Your task to perform on an android device: turn on data saver in the chrome app Image 0: 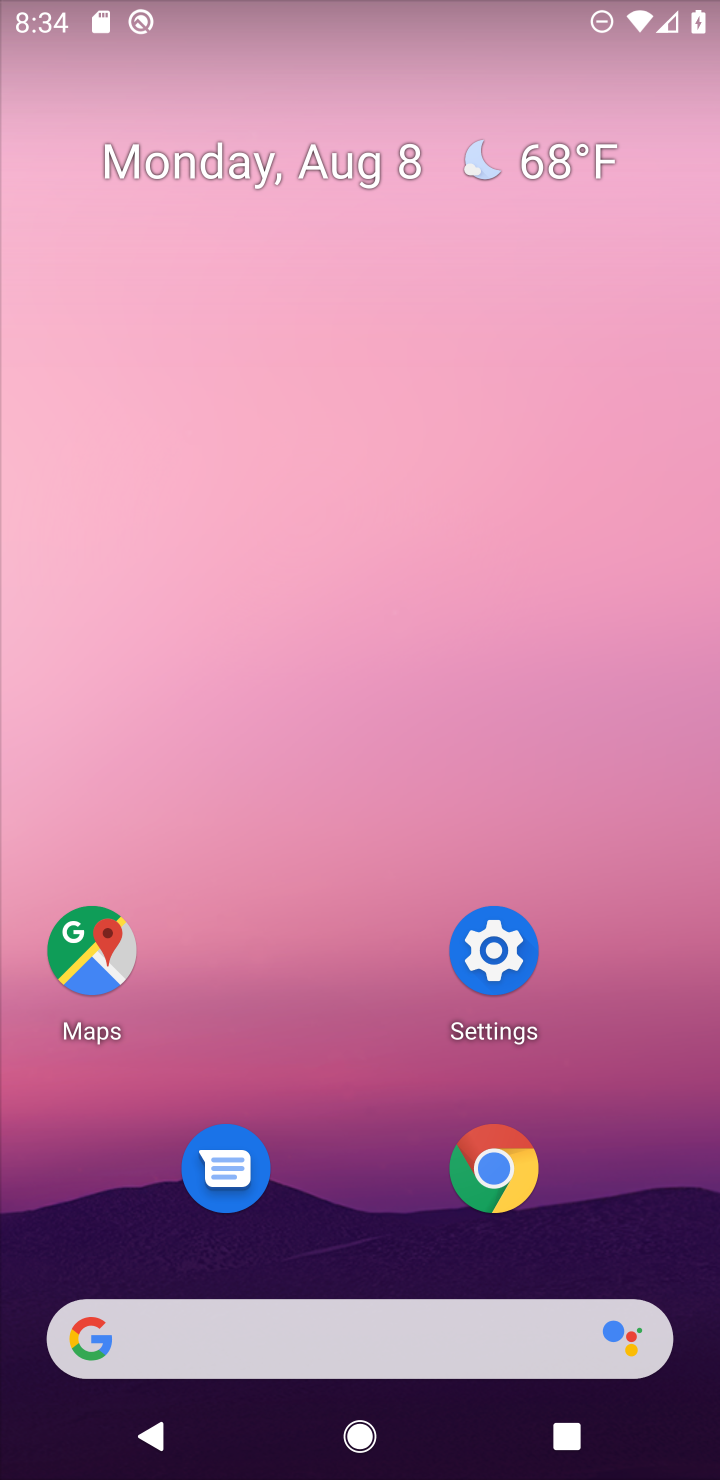
Step 0: click (491, 1186)
Your task to perform on an android device: turn on data saver in the chrome app Image 1: 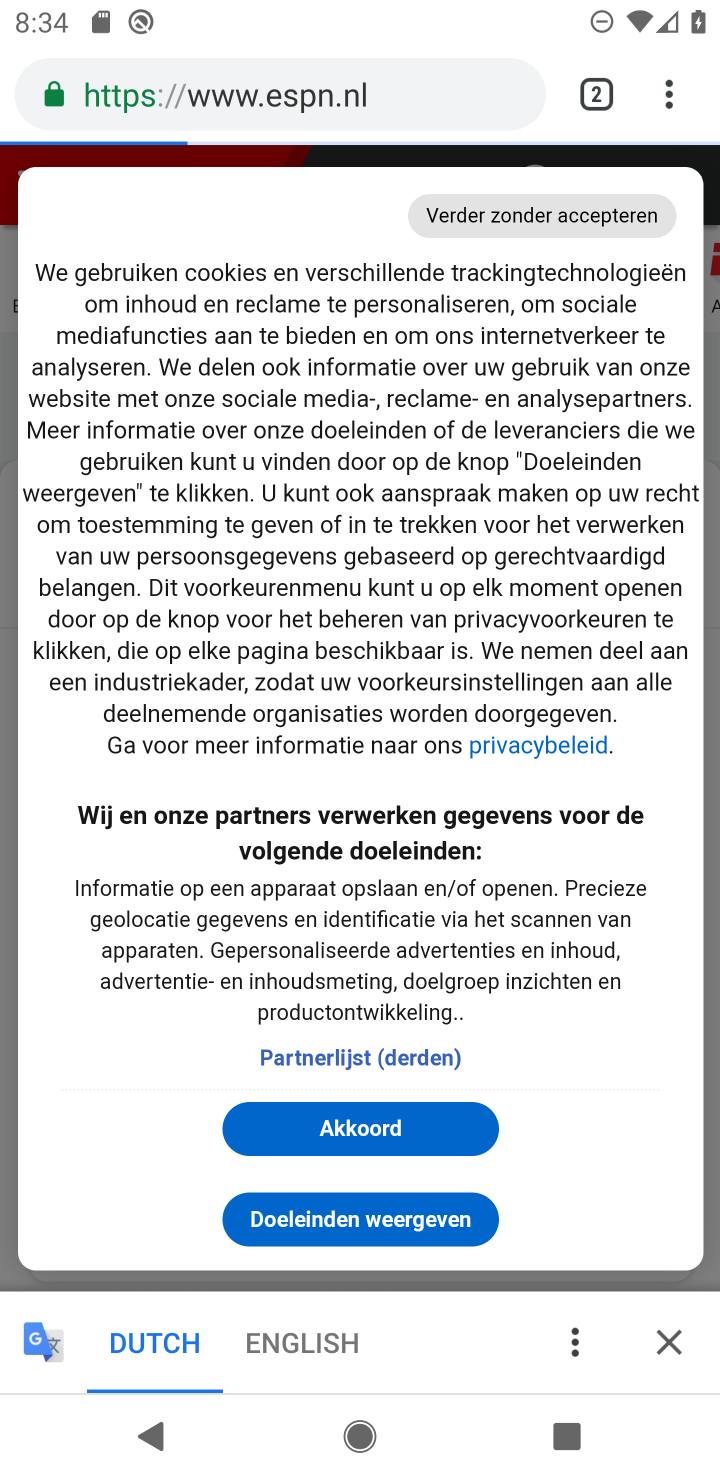
Step 1: drag from (661, 79) to (429, 1065)
Your task to perform on an android device: turn on data saver in the chrome app Image 2: 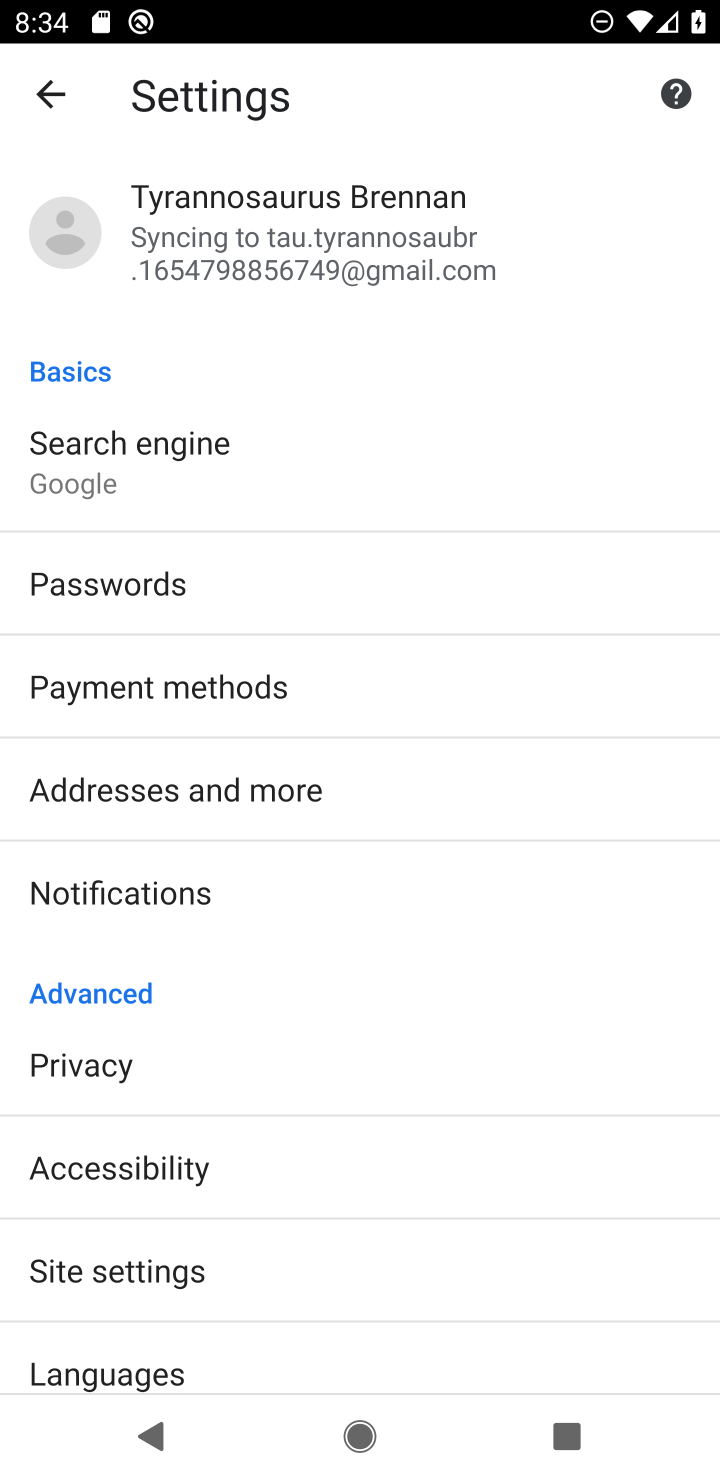
Step 2: drag from (201, 1332) to (347, 697)
Your task to perform on an android device: turn on data saver in the chrome app Image 3: 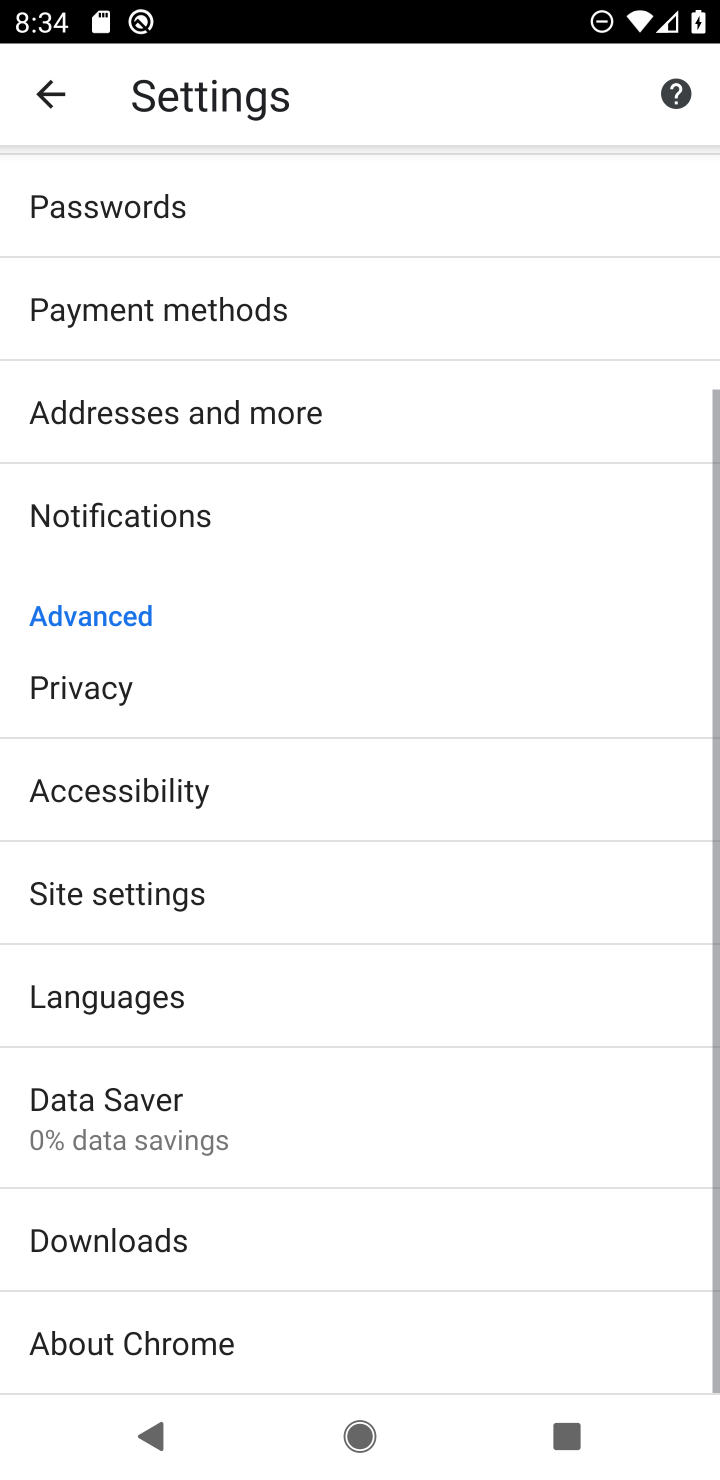
Step 3: click (162, 1128)
Your task to perform on an android device: turn on data saver in the chrome app Image 4: 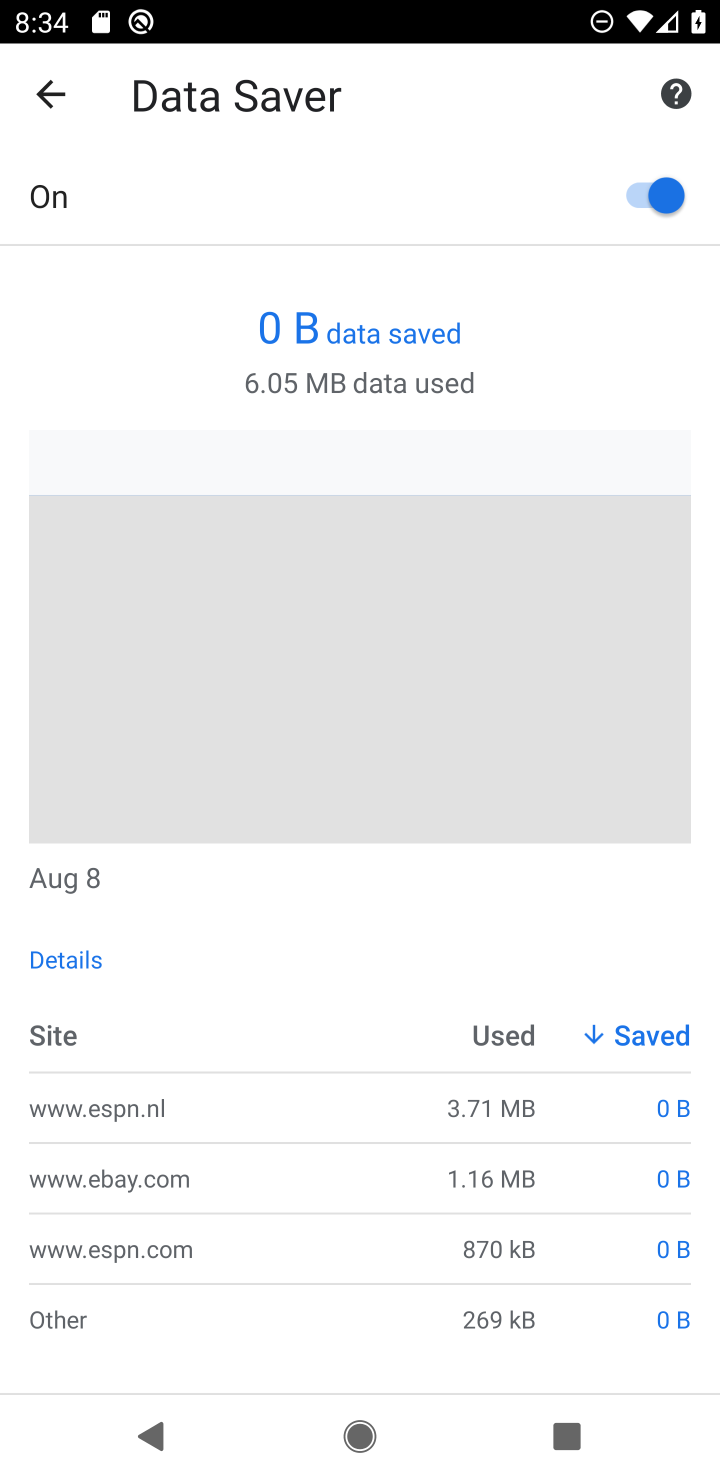
Step 4: task complete